Your task to perform on an android device: change your default location settings in chrome Image 0: 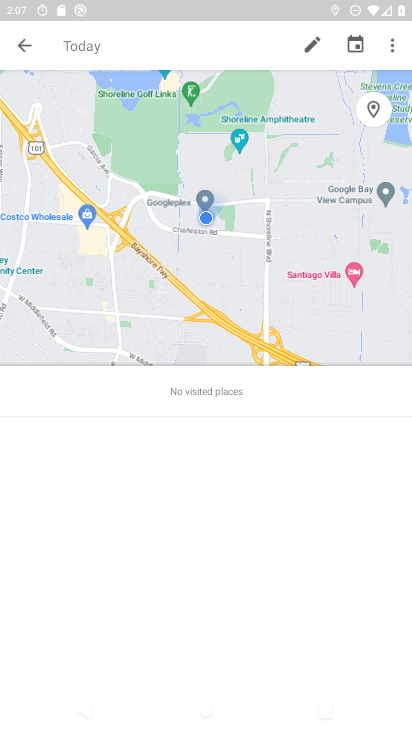
Step 0: press home button
Your task to perform on an android device: change your default location settings in chrome Image 1: 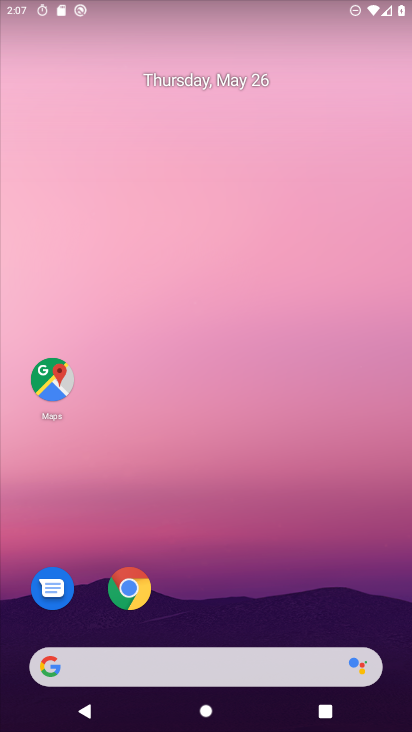
Step 1: click (142, 584)
Your task to perform on an android device: change your default location settings in chrome Image 2: 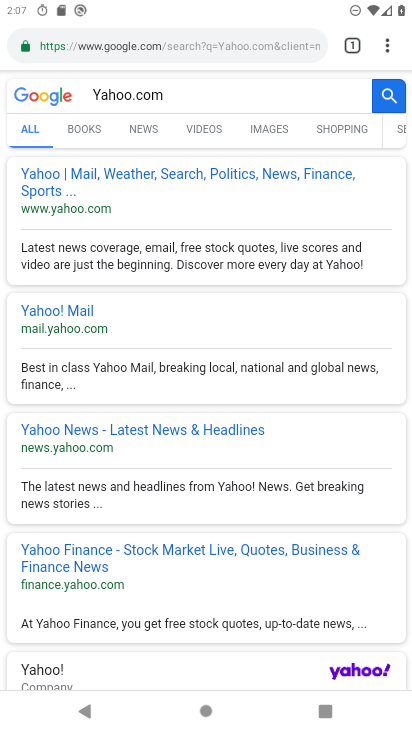
Step 2: press back button
Your task to perform on an android device: change your default location settings in chrome Image 3: 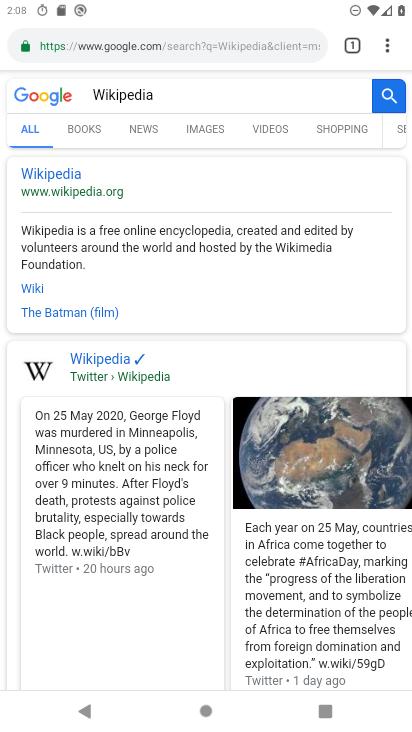
Step 3: click (384, 39)
Your task to perform on an android device: change your default location settings in chrome Image 4: 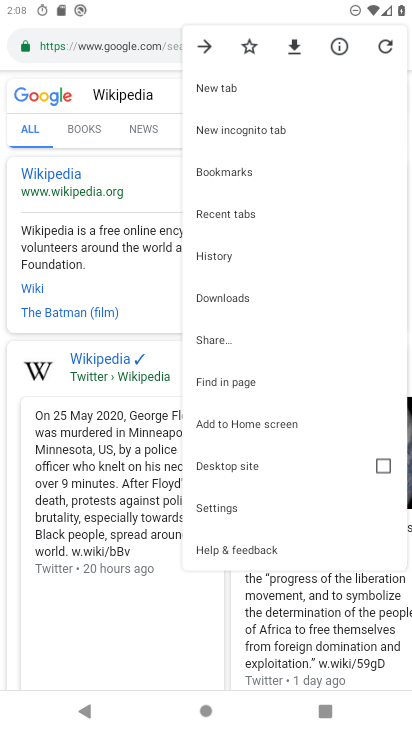
Step 4: click (225, 504)
Your task to perform on an android device: change your default location settings in chrome Image 5: 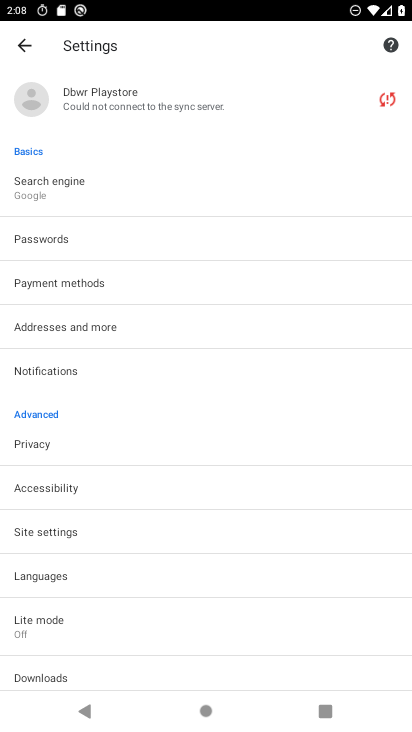
Step 5: click (45, 529)
Your task to perform on an android device: change your default location settings in chrome Image 6: 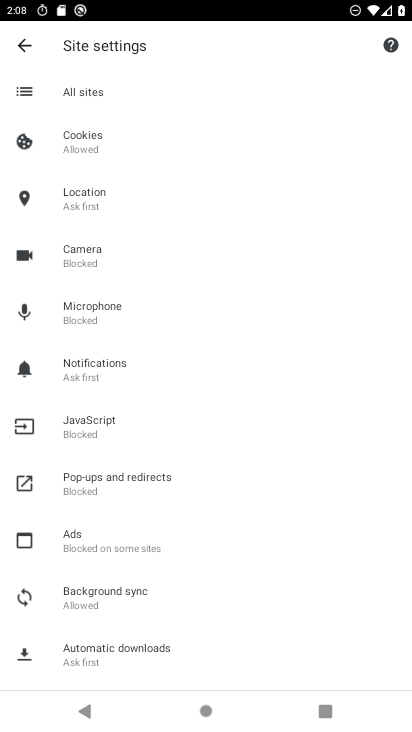
Step 6: click (73, 198)
Your task to perform on an android device: change your default location settings in chrome Image 7: 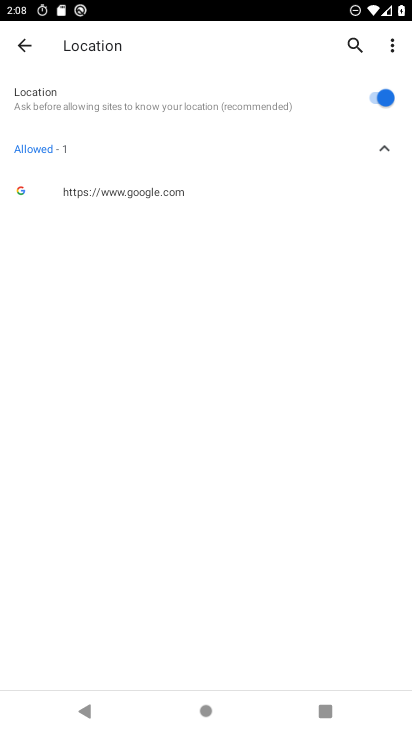
Step 7: task complete